Your task to perform on an android device: What is the recent news? Image 0: 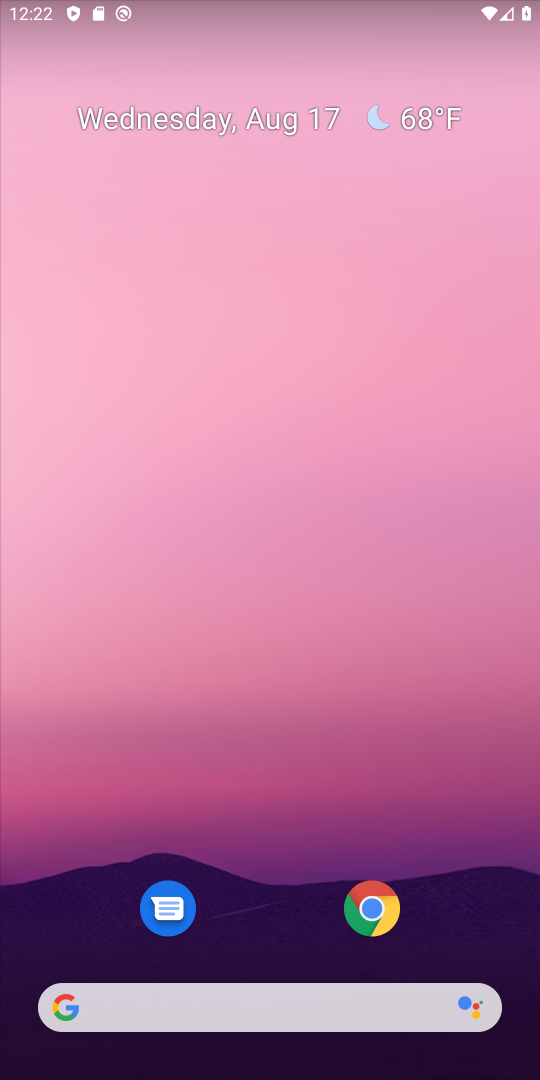
Step 0: drag from (264, 878) to (264, 134)
Your task to perform on an android device: What is the recent news? Image 1: 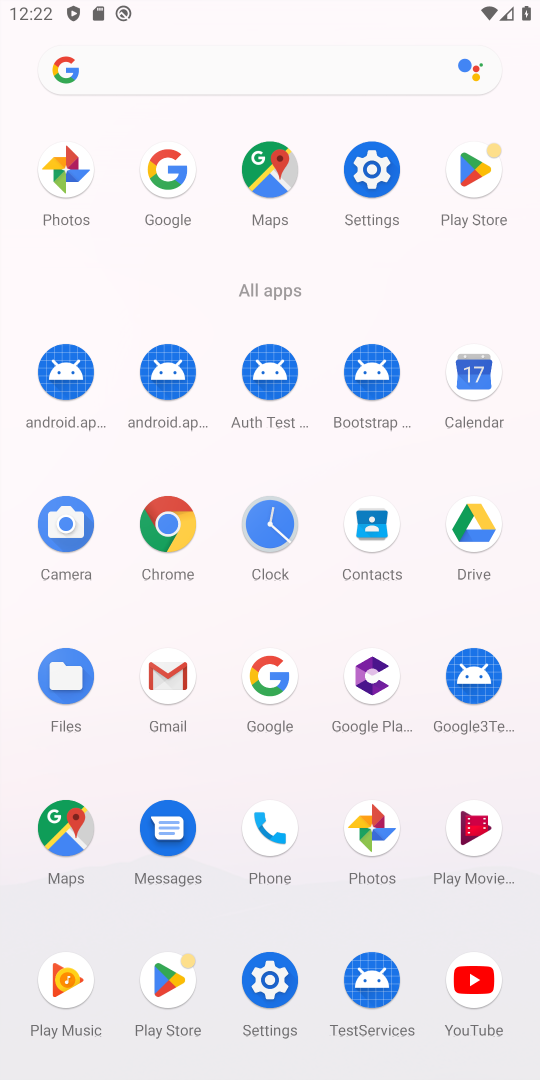
Step 1: click (147, 182)
Your task to perform on an android device: What is the recent news? Image 2: 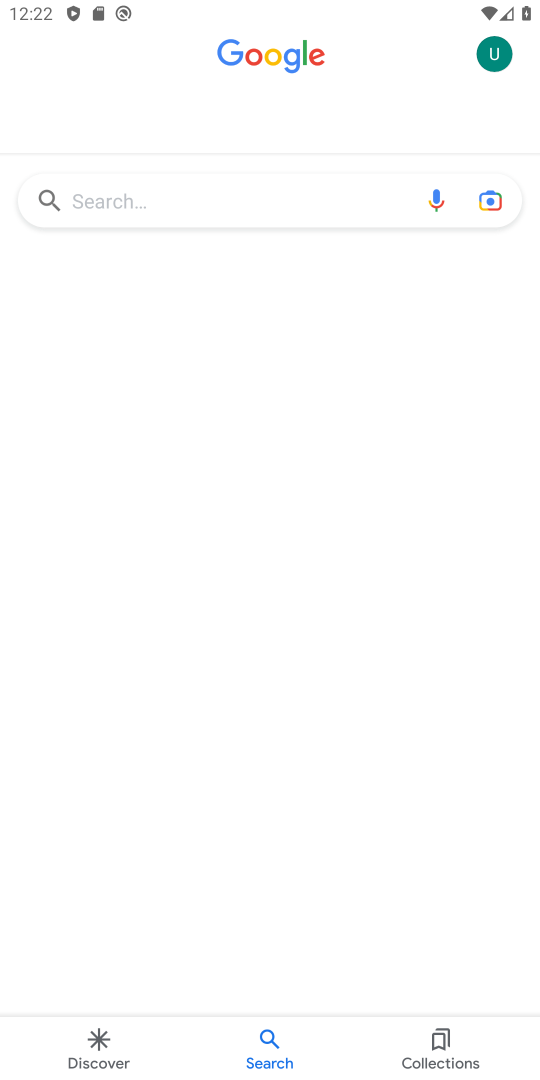
Step 2: click (171, 213)
Your task to perform on an android device: What is the recent news? Image 3: 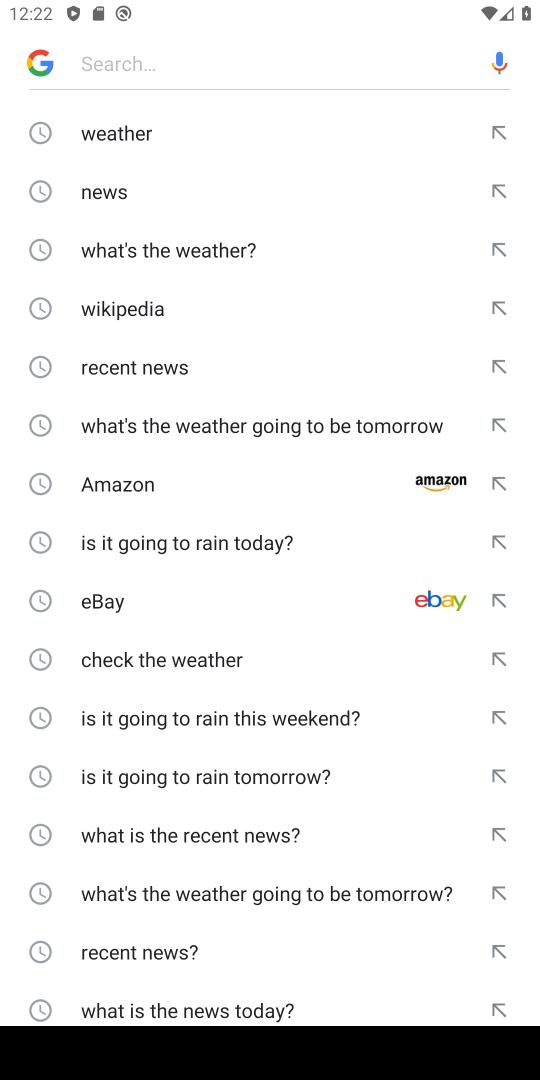
Step 3: click (145, 199)
Your task to perform on an android device: What is the recent news? Image 4: 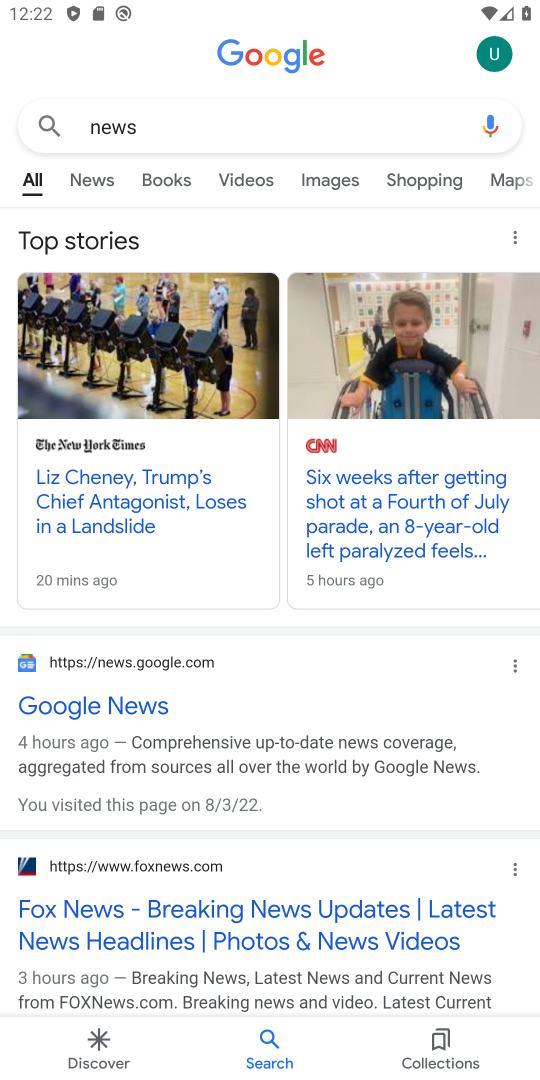
Step 4: click (86, 179)
Your task to perform on an android device: What is the recent news? Image 5: 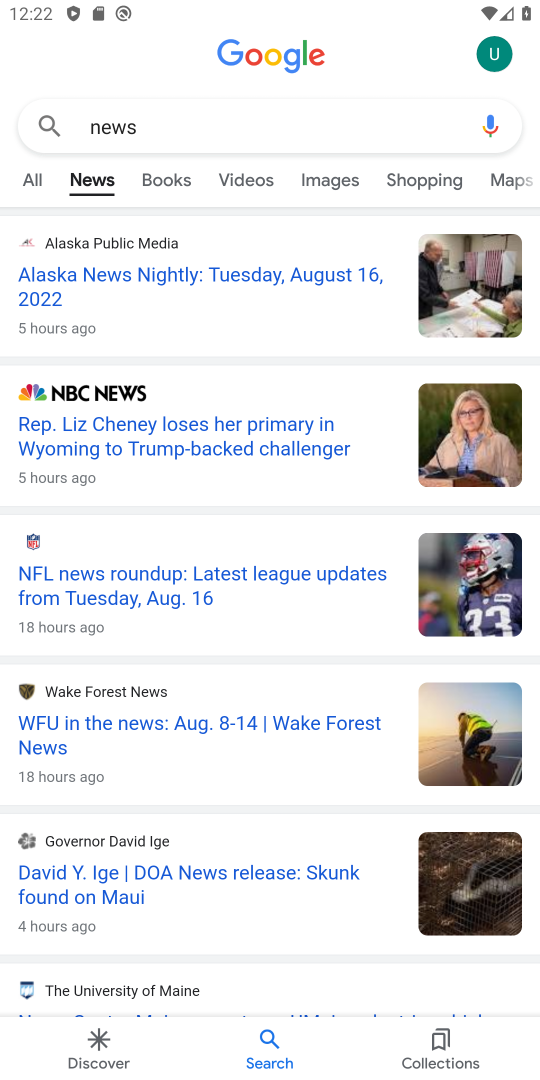
Step 5: task complete